Your task to perform on an android device: open app "Google Photos" Image 0: 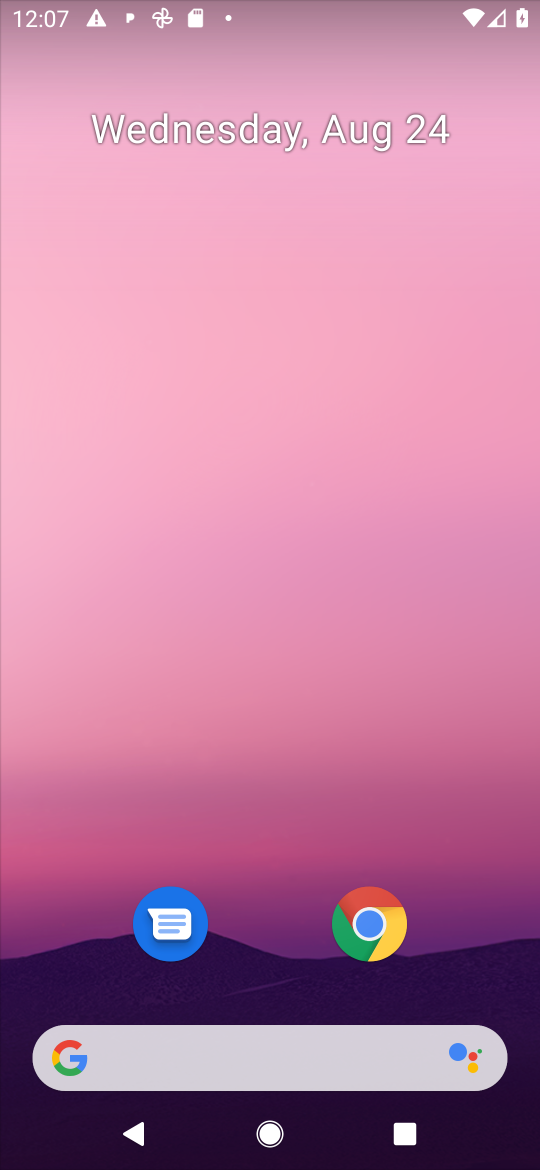
Step 0: press home button
Your task to perform on an android device: open app "Google Photos" Image 1: 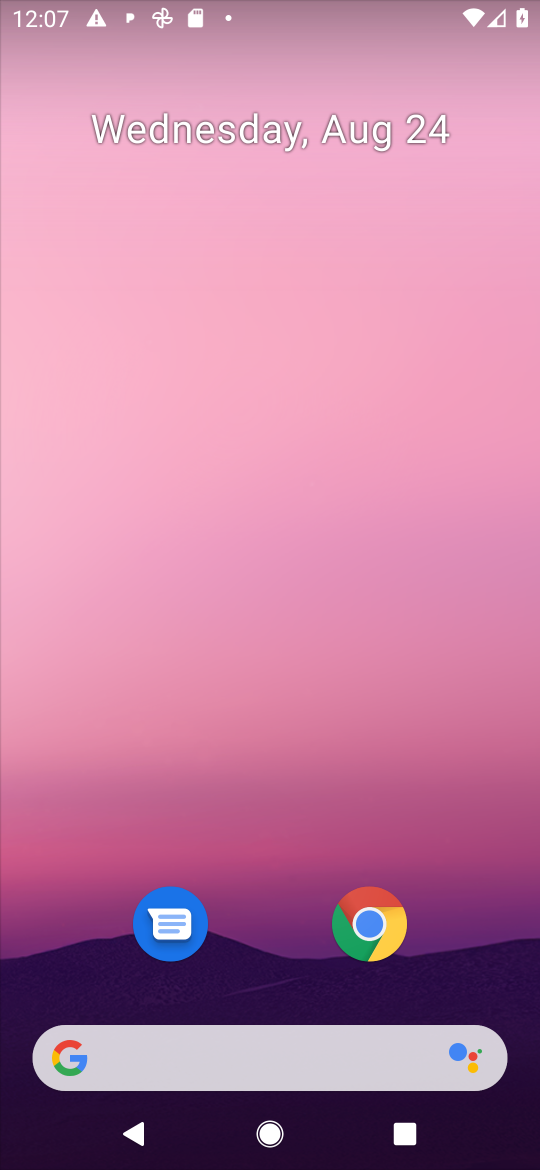
Step 1: drag from (478, 970) to (477, 144)
Your task to perform on an android device: open app "Google Photos" Image 2: 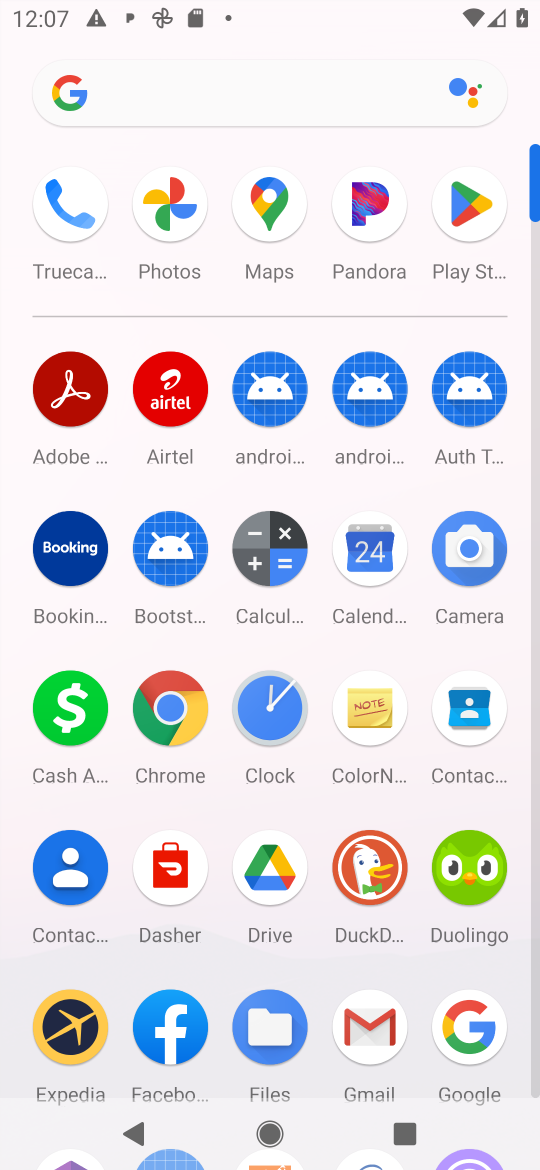
Step 2: click (469, 200)
Your task to perform on an android device: open app "Google Photos" Image 3: 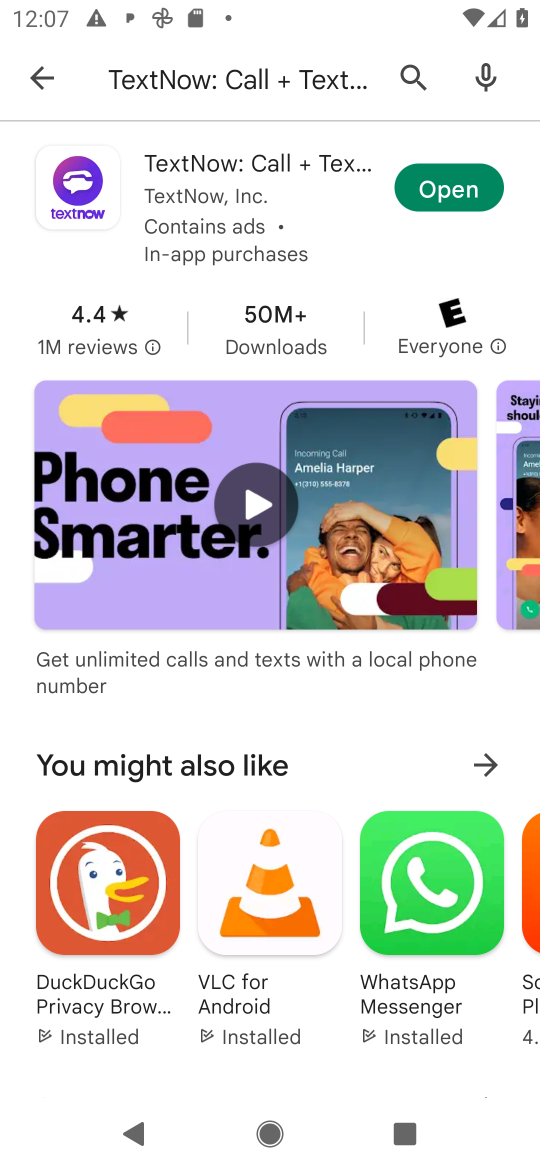
Step 3: press back button
Your task to perform on an android device: open app "Google Photos" Image 4: 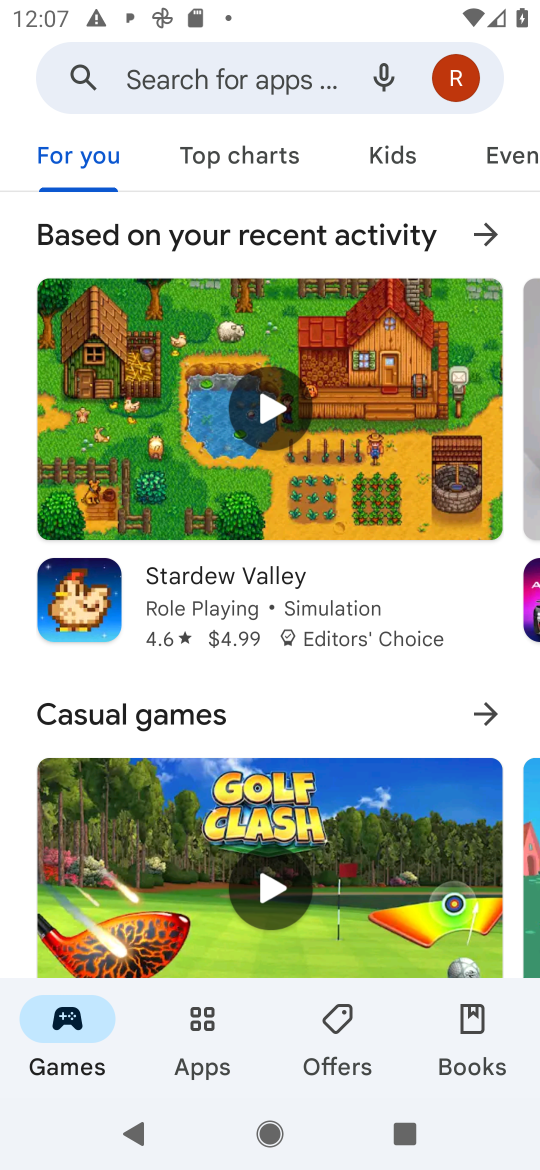
Step 4: click (271, 76)
Your task to perform on an android device: open app "Google Photos" Image 5: 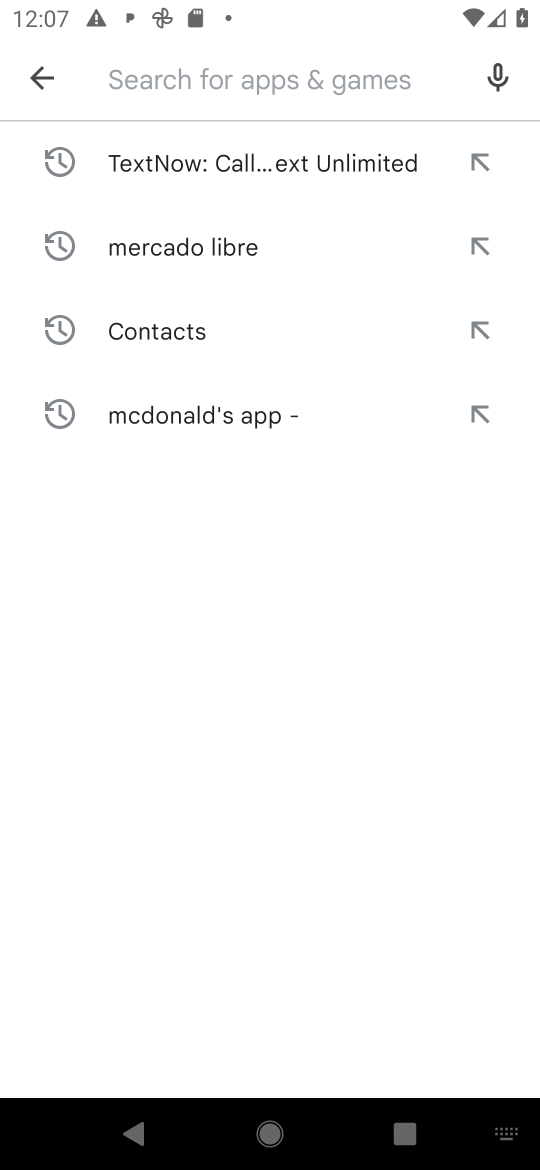
Step 5: press enter
Your task to perform on an android device: open app "Google Photos" Image 6: 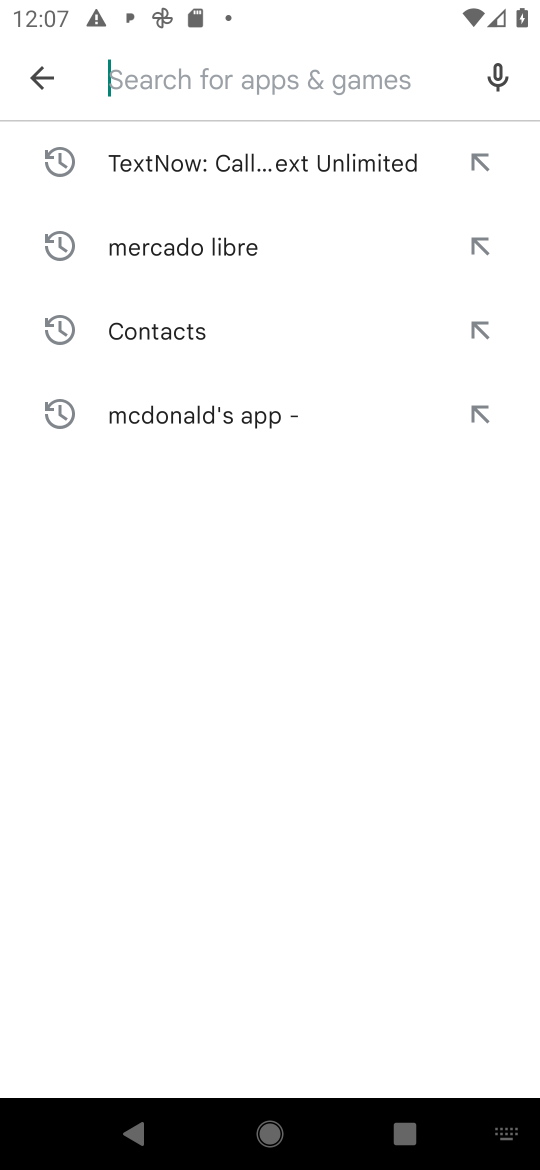
Step 6: type "Google Photos"
Your task to perform on an android device: open app "Google Photos" Image 7: 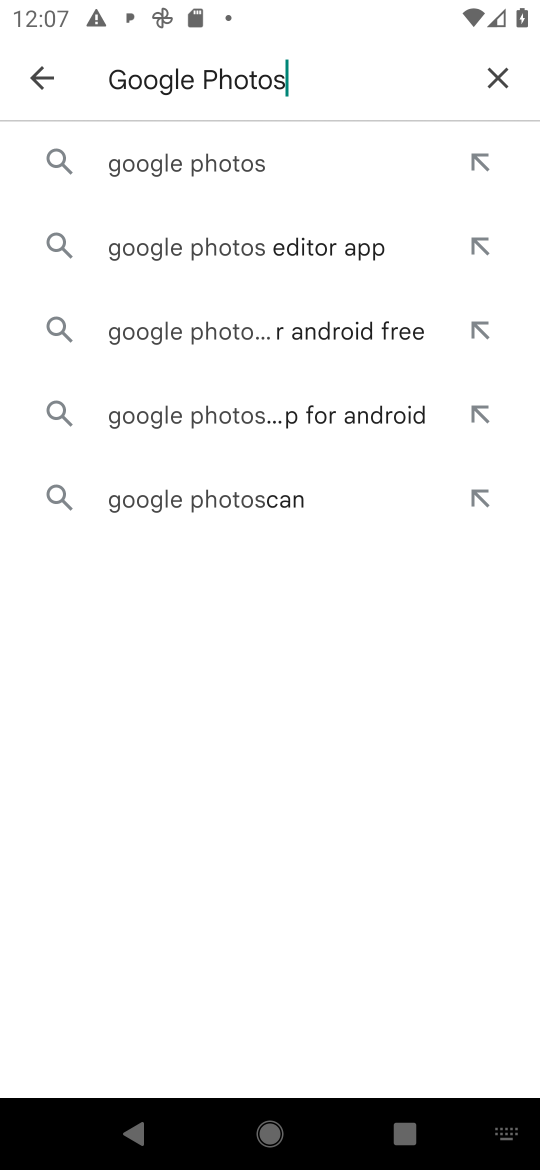
Step 7: click (268, 162)
Your task to perform on an android device: open app "Google Photos" Image 8: 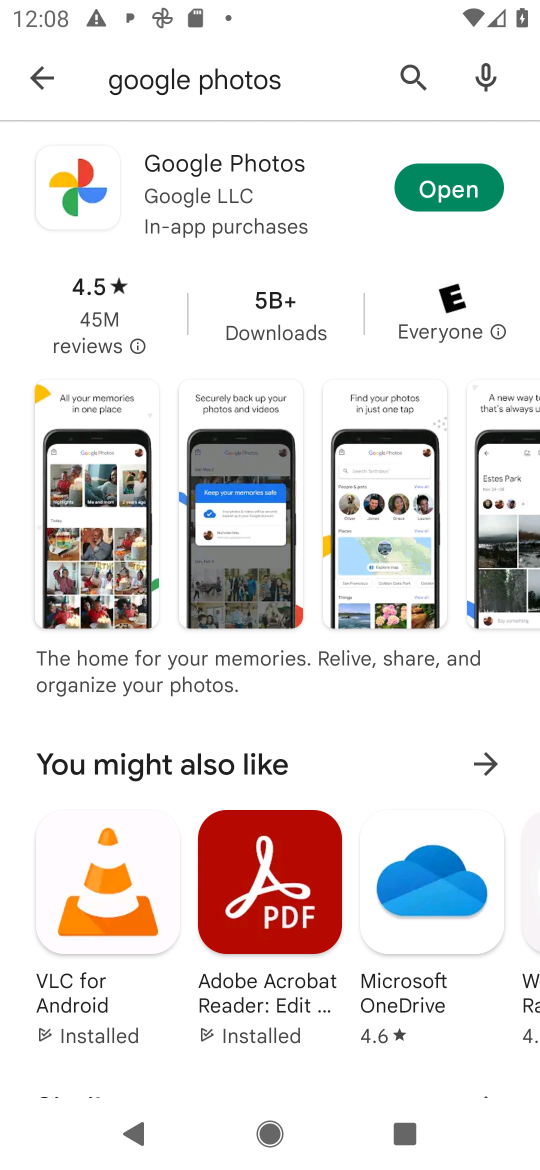
Step 8: click (466, 192)
Your task to perform on an android device: open app "Google Photos" Image 9: 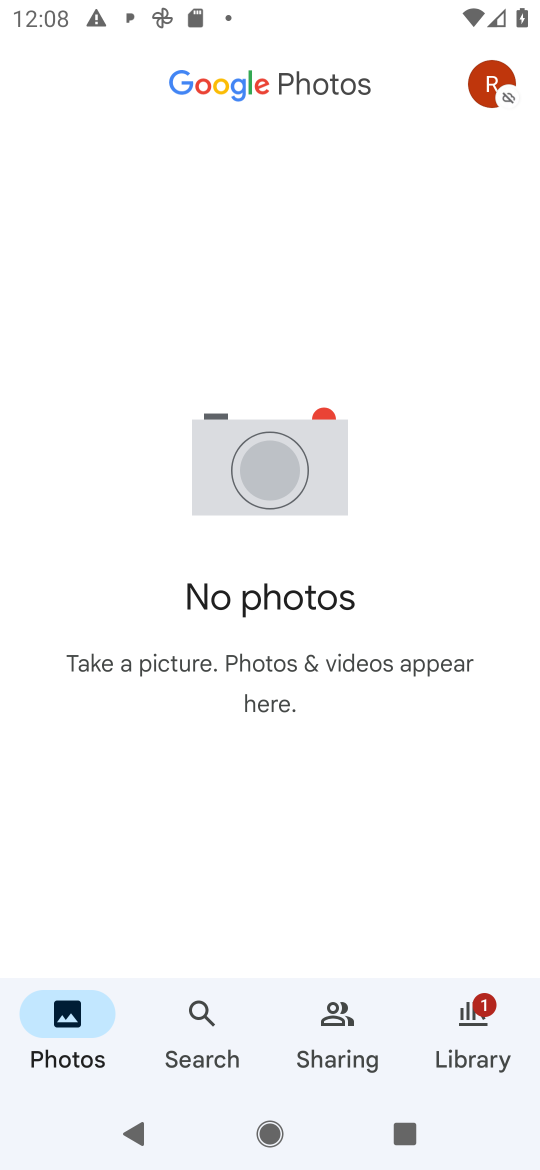
Step 9: task complete